Your task to perform on an android device: What's on my calendar tomorrow? Image 0: 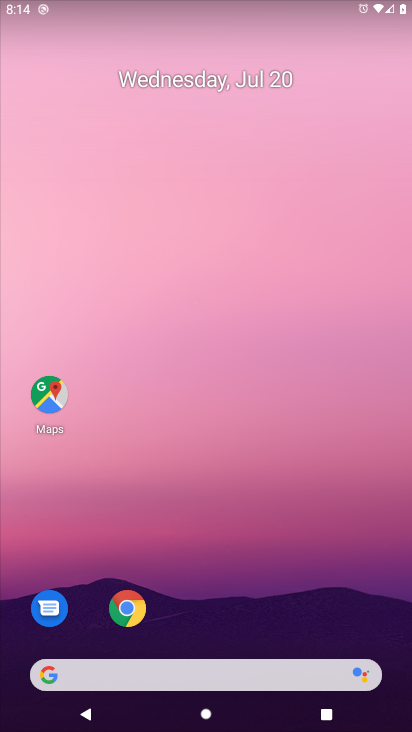
Step 0: drag from (193, 615) to (240, 20)
Your task to perform on an android device: What's on my calendar tomorrow? Image 1: 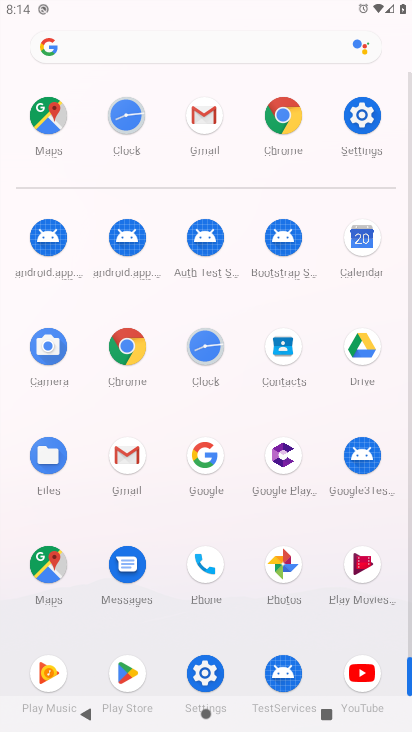
Step 1: click (374, 259)
Your task to perform on an android device: What's on my calendar tomorrow? Image 2: 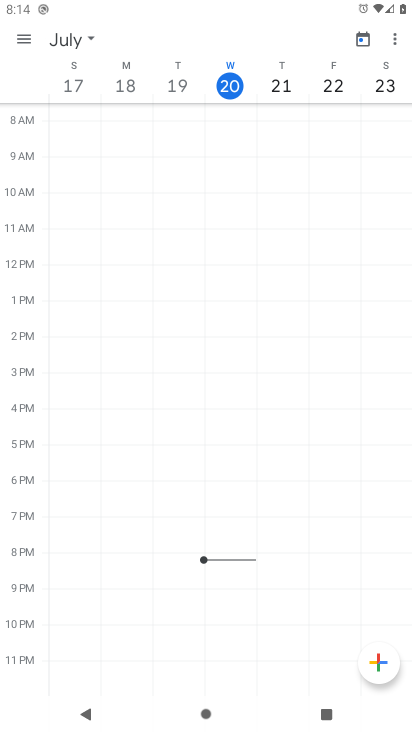
Step 2: click (16, 37)
Your task to perform on an android device: What's on my calendar tomorrow? Image 3: 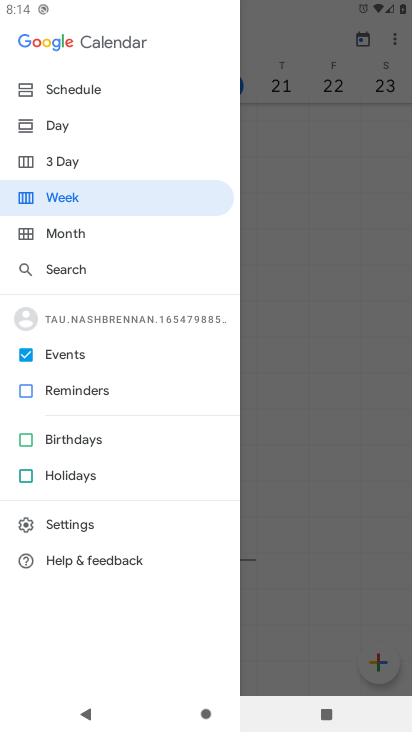
Step 3: click (76, 389)
Your task to perform on an android device: What's on my calendar tomorrow? Image 4: 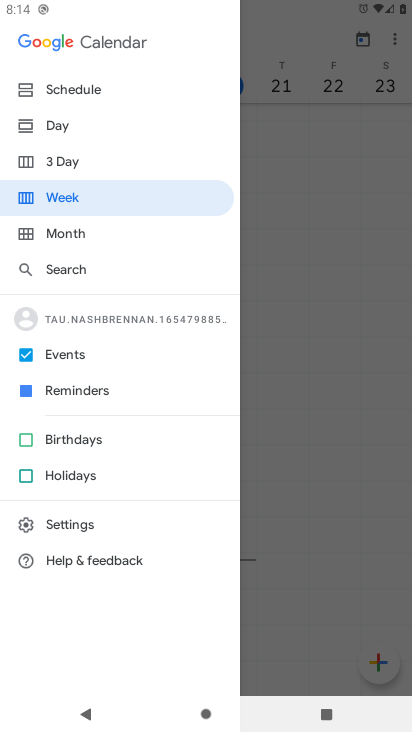
Step 4: click (74, 450)
Your task to perform on an android device: What's on my calendar tomorrow? Image 5: 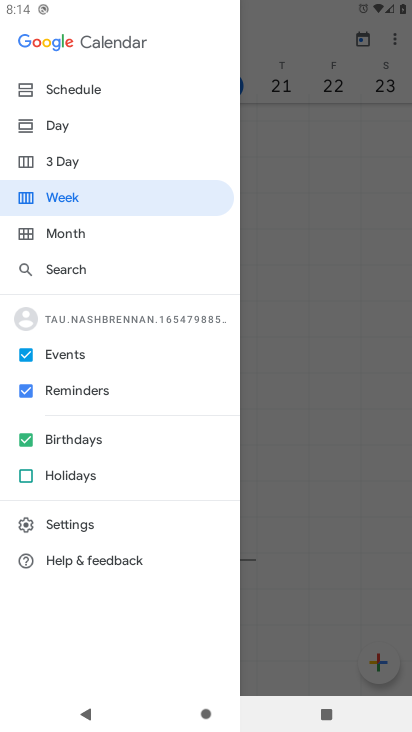
Step 5: click (73, 477)
Your task to perform on an android device: What's on my calendar tomorrow? Image 6: 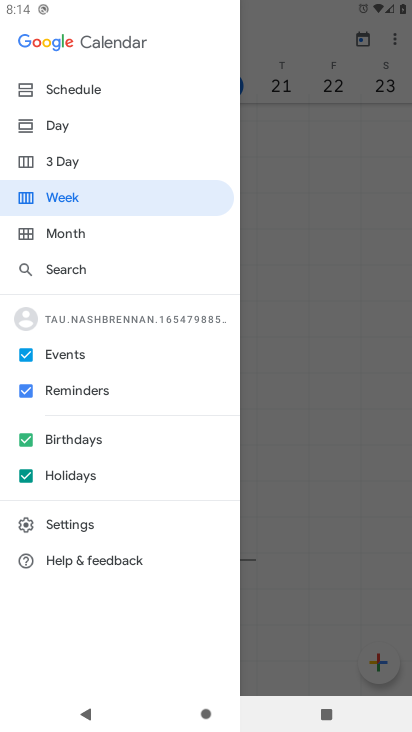
Step 6: click (85, 162)
Your task to perform on an android device: What's on my calendar tomorrow? Image 7: 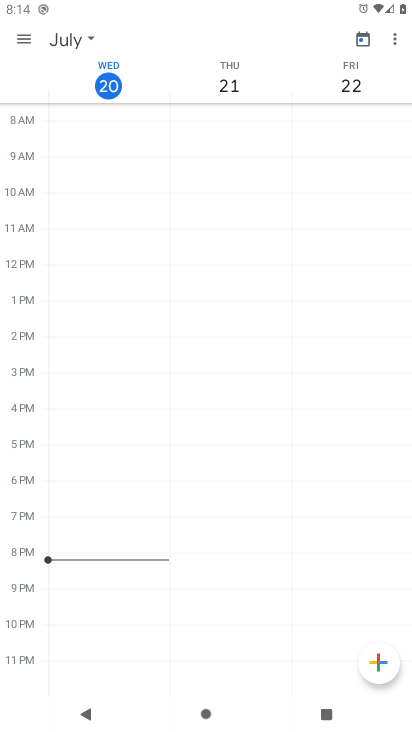
Step 7: click (232, 89)
Your task to perform on an android device: What's on my calendar tomorrow? Image 8: 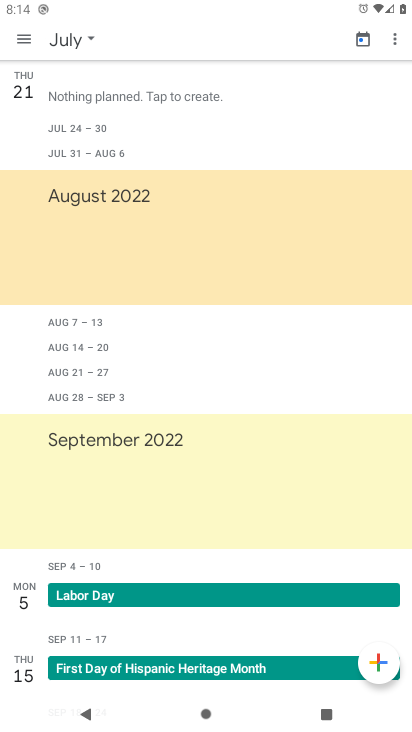
Step 8: task complete